Your task to perform on an android device: Open privacy settings Image 0: 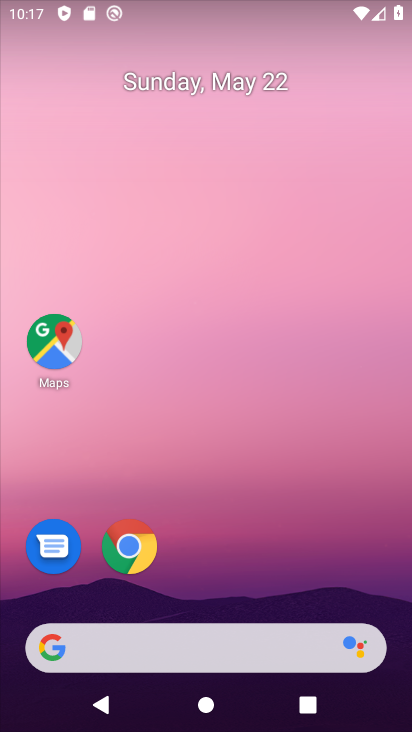
Step 0: drag from (205, 603) to (251, 47)
Your task to perform on an android device: Open privacy settings Image 1: 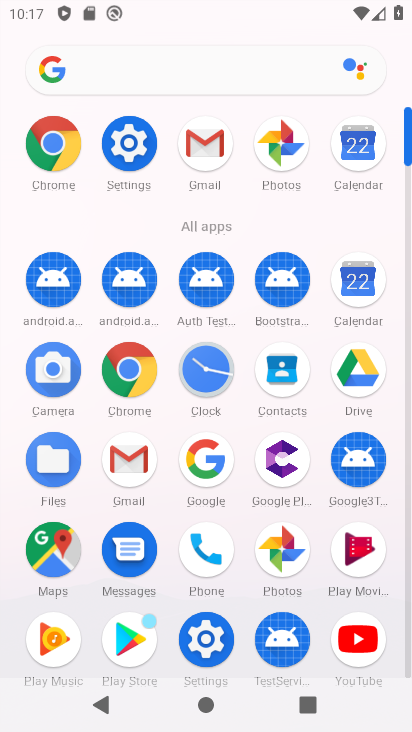
Step 1: click (140, 155)
Your task to perform on an android device: Open privacy settings Image 2: 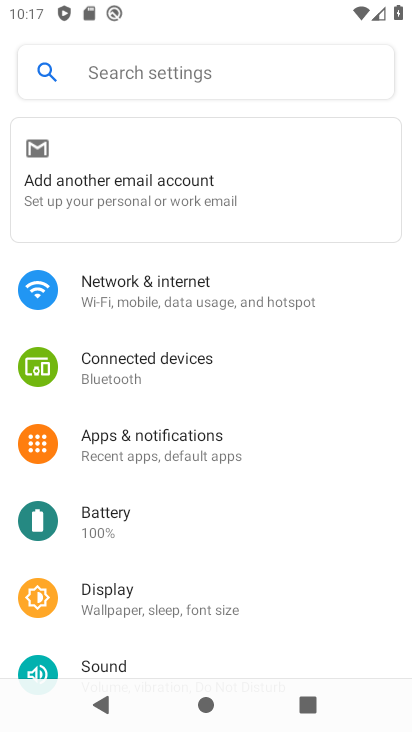
Step 2: drag from (161, 534) to (175, 273)
Your task to perform on an android device: Open privacy settings Image 3: 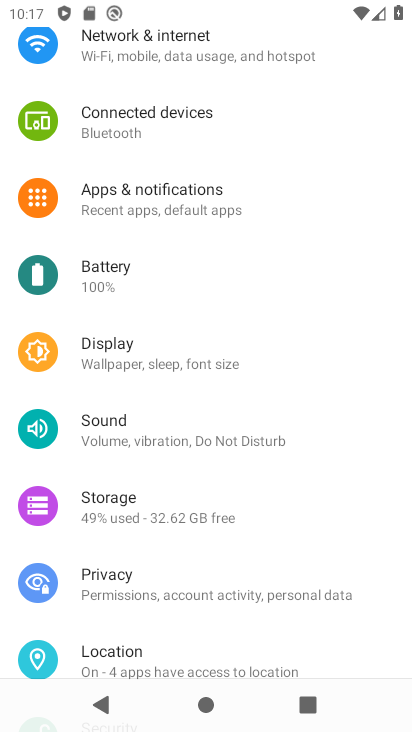
Step 3: click (138, 587)
Your task to perform on an android device: Open privacy settings Image 4: 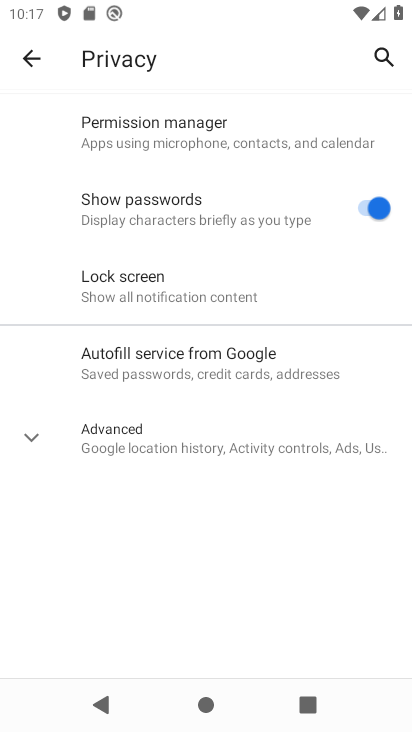
Step 4: task complete